Your task to perform on an android device: turn on priority inbox in the gmail app Image 0: 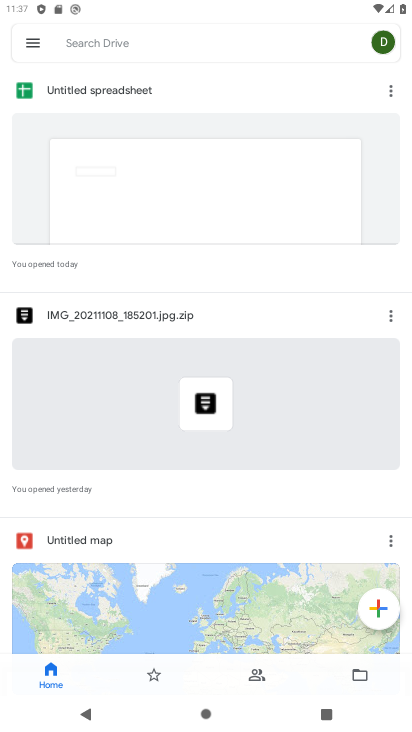
Step 0: press home button
Your task to perform on an android device: turn on priority inbox in the gmail app Image 1: 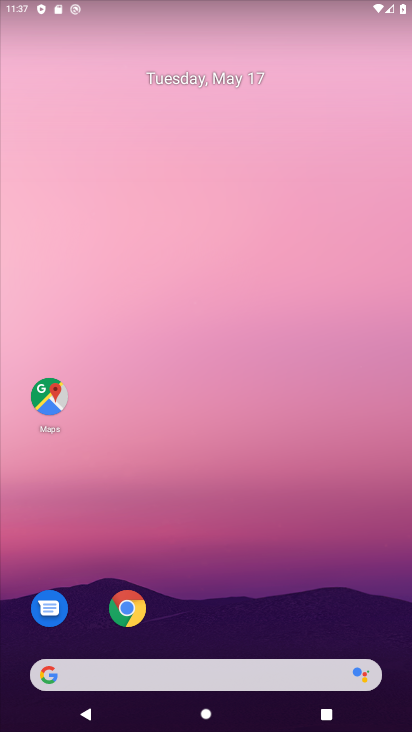
Step 1: drag from (169, 711) to (269, 260)
Your task to perform on an android device: turn on priority inbox in the gmail app Image 2: 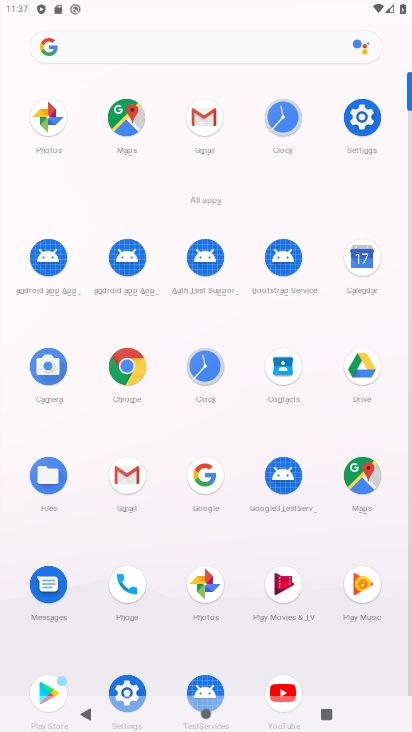
Step 2: click (208, 117)
Your task to perform on an android device: turn on priority inbox in the gmail app Image 3: 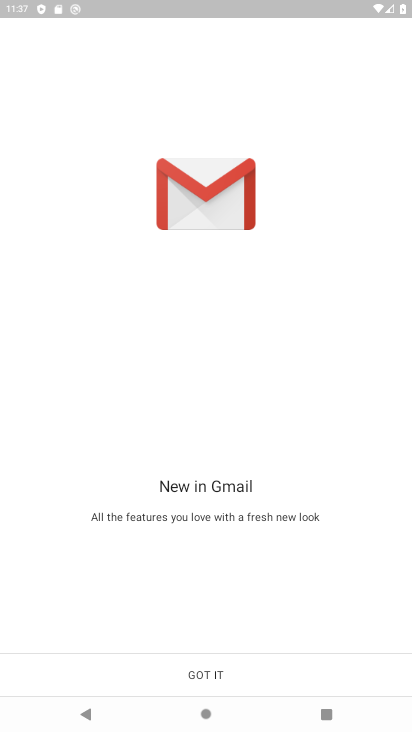
Step 3: click (228, 676)
Your task to perform on an android device: turn on priority inbox in the gmail app Image 4: 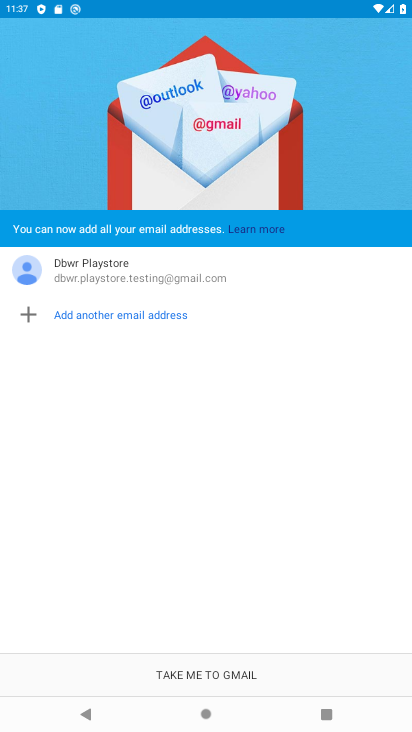
Step 4: click (228, 676)
Your task to perform on an android device: turn on priority inbox in the gmail app Image 5: 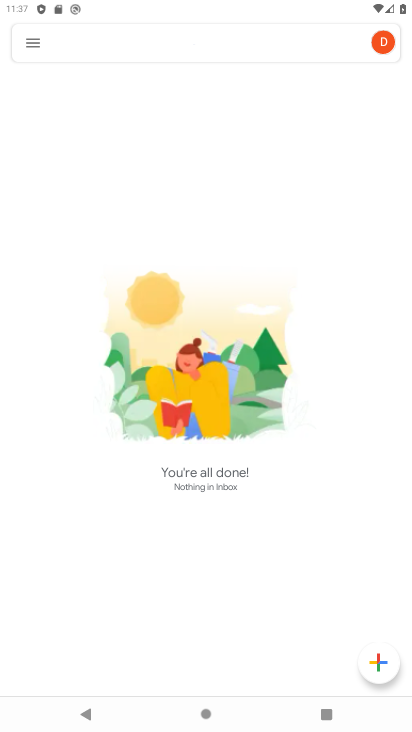
Step 5: click (35, 41)
Your task to perform on an android device: turn on priority inbox in the gmail app Image 6: 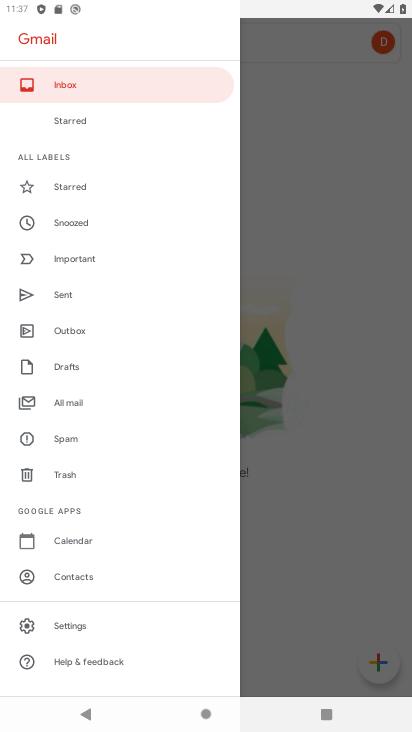
Step 6: click (99, 630)
Your task to perform on an android device: turn on priority inbox in the gmail app Image 7: 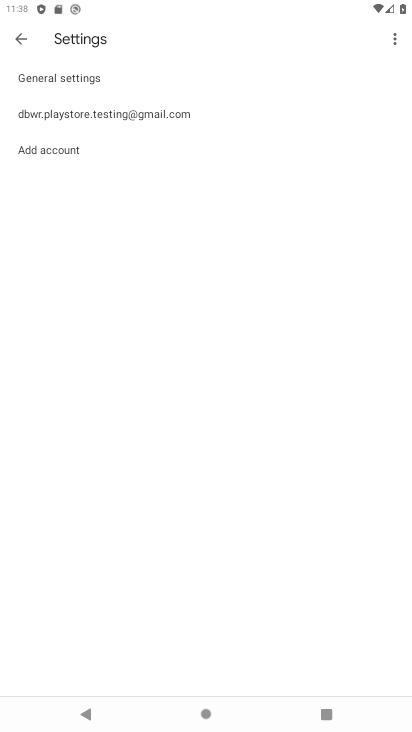
Step 7: click (175, 112)
Your task to perform on an android device: turn on priority inbox in the gmail app Image 8: 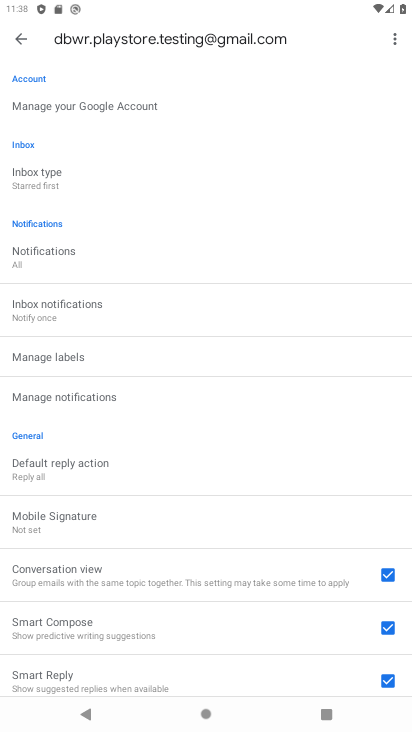
Step 8: click (67, 179)
Your task to perform on an android device: turn on priority inbox in the gmail app Image 9: 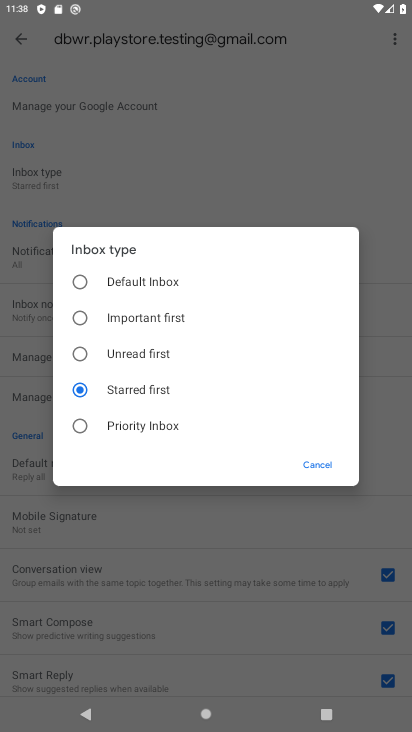
Step 9: click (137, 429)
Your task to perform on an android device: turn on priority inbox in the gmail app Image 10: 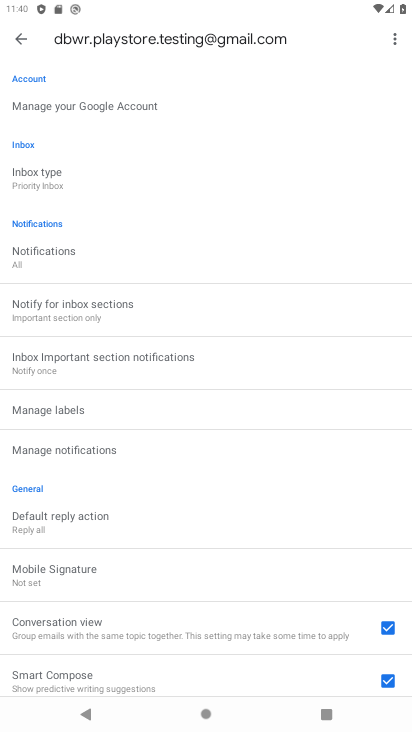
Step 10: task complete